Your task to perform on an android device: Add corsair k70 to the cart on newegg.com Image 0: 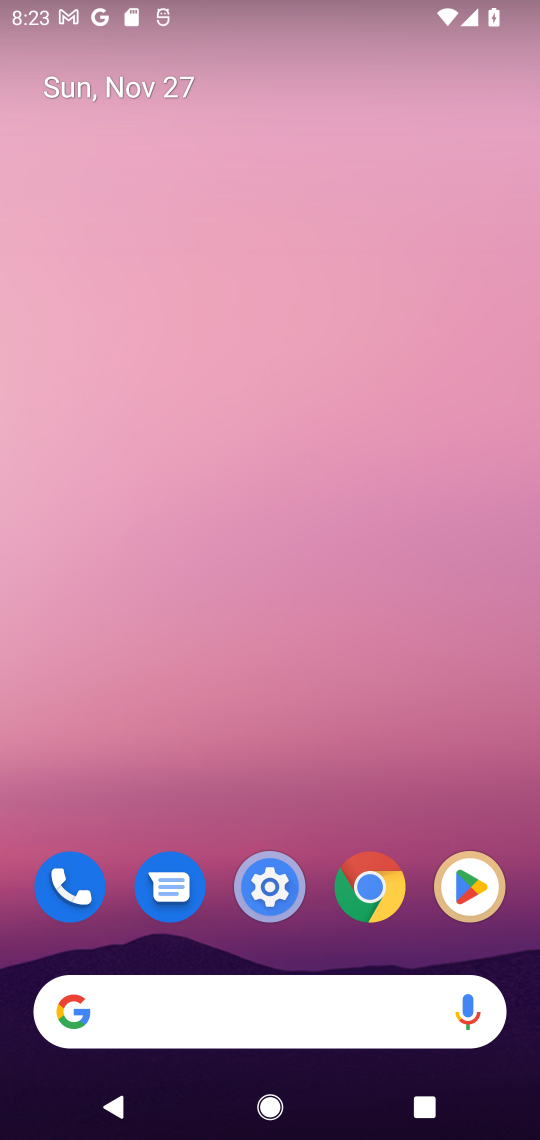
Step 0: click (298, 1011)
Your task to perform on an android device: Add corsair k70 to the cart on newegg.com Image 1: 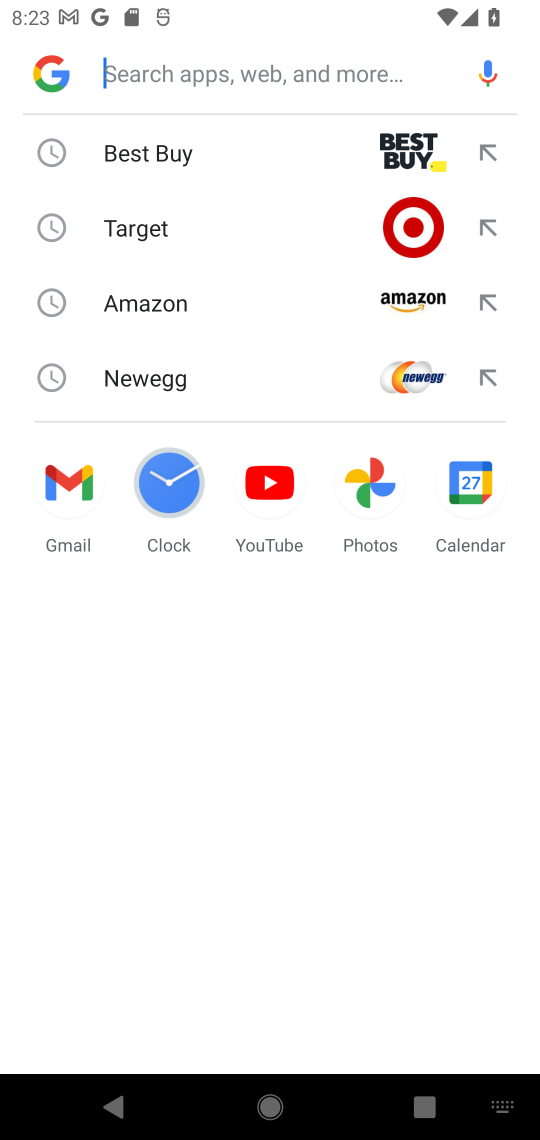
Step 1: type "newegg.com"
Your task to perform on an android device: Add corsair k70 to the cart on newegg.com Image 2: 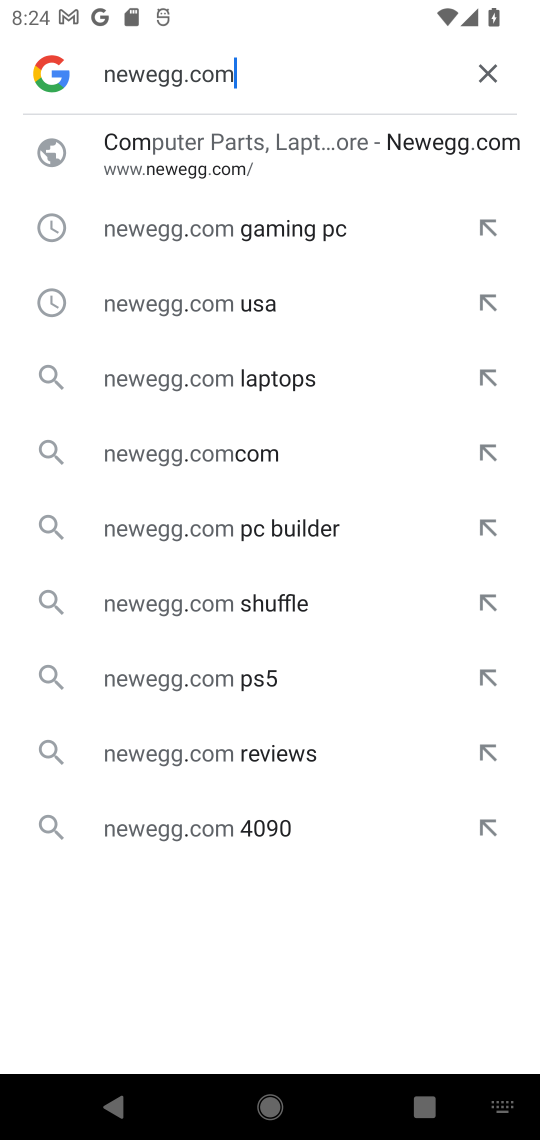
Step 2: click (181, 142)
Your task to perform on an android device: Add corsair k70 to the cart on newegg.com Image 3: 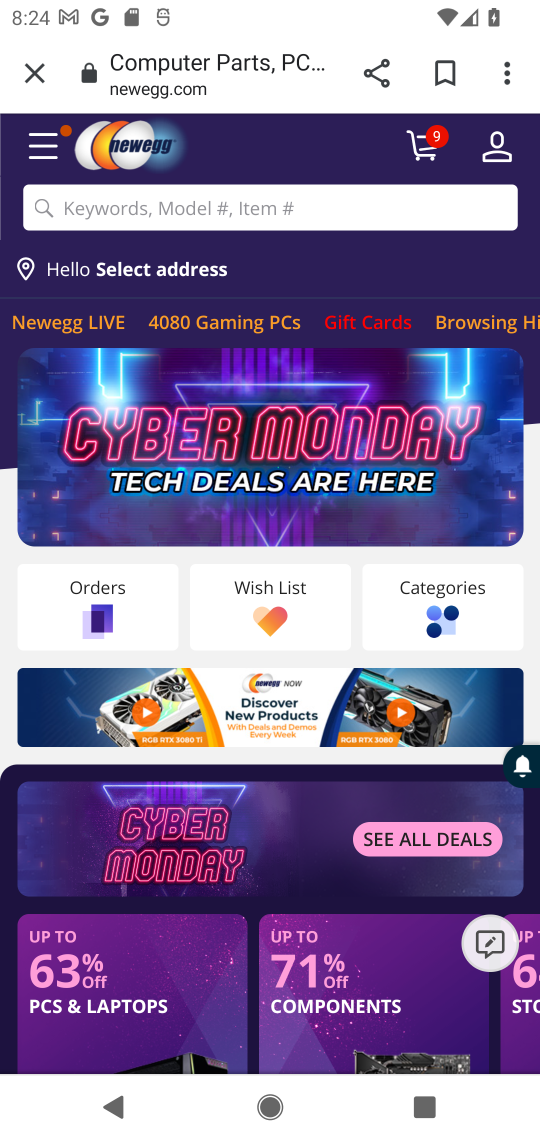
Step 3: click (234, 223)
Your task to perform on an android device: Add corsair k70 to the cart on newegg.com Image 4: 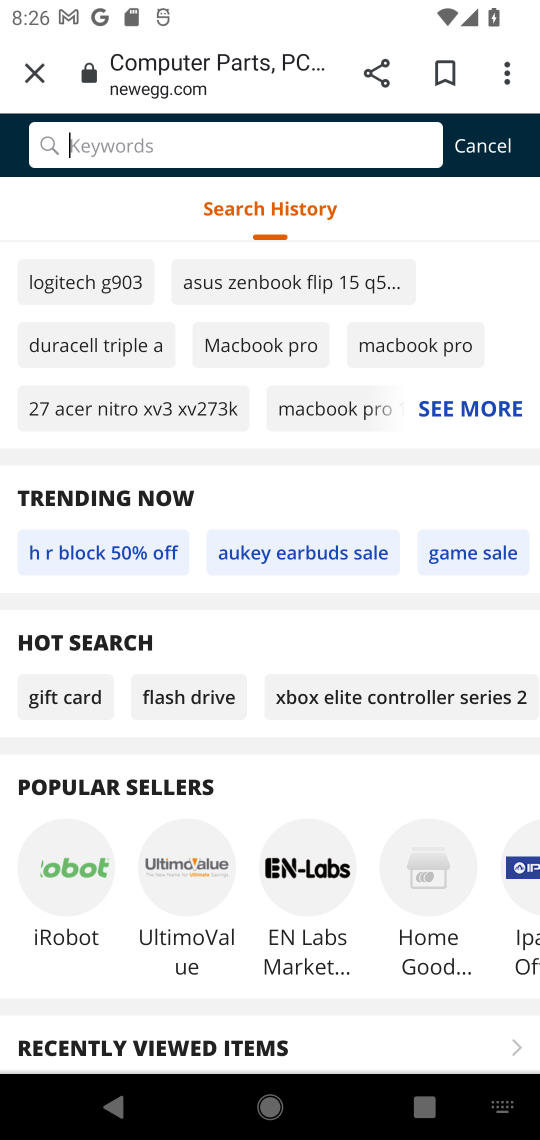
Step 4: task complete